Your task to perform on an android device: all mails in gmail Image 0: 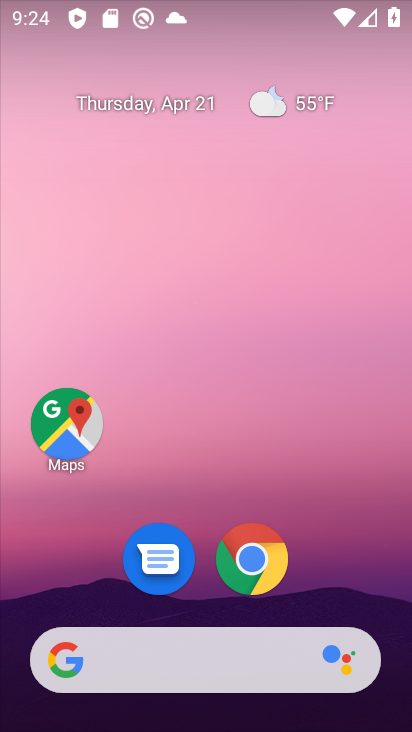
Step 0: drag from (358, 589) to (329, 34)
Your task to perform on an android device: all mails in gmail Image 1: 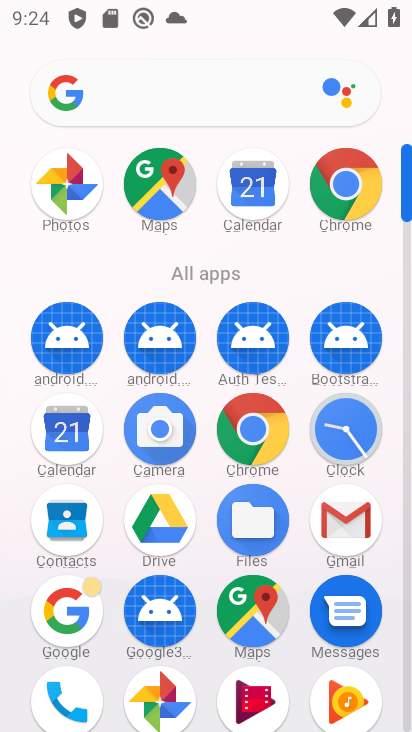
Step 1: click (359, 522)
Your task to perform on an android device: all mails in gmail Image 2: 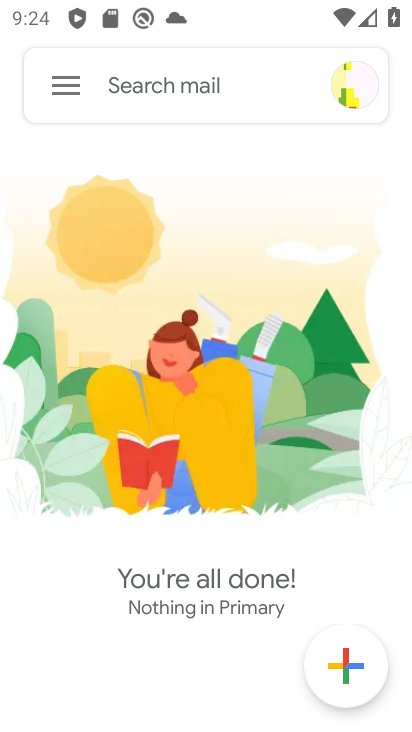
Step 2: click (66, 86)
Your task to perform on an android device: all mails in gmail Image 3: 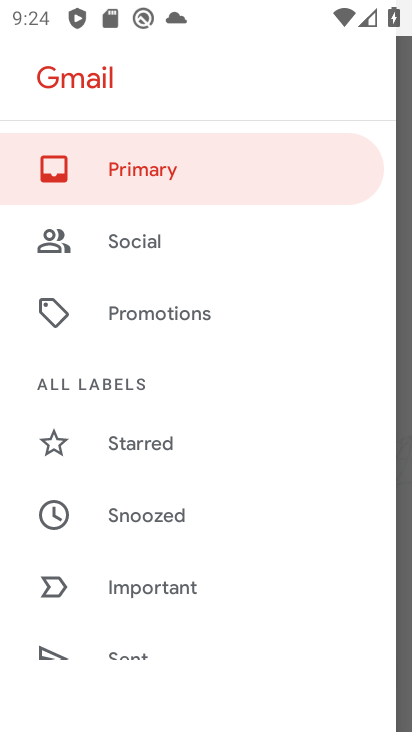
Step 3: drag from (160, 628) to (121, 348)
Your task to perform on an android device: all mails in gmail Image 4: 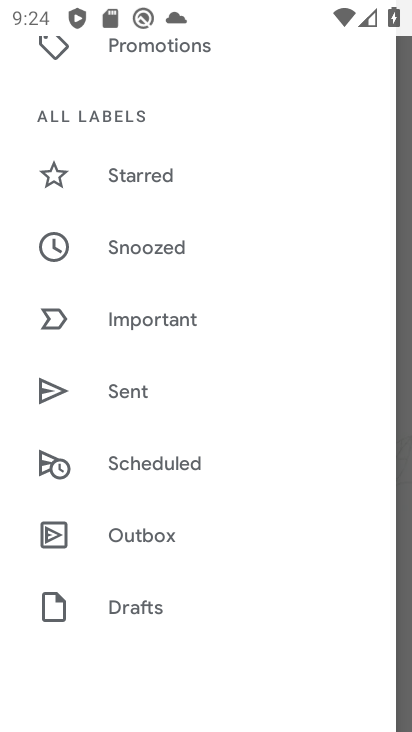
Step 4: drag from (153, 571) to (140, 290)
Your task to perform on an android device: all mails in gmail Image 5: 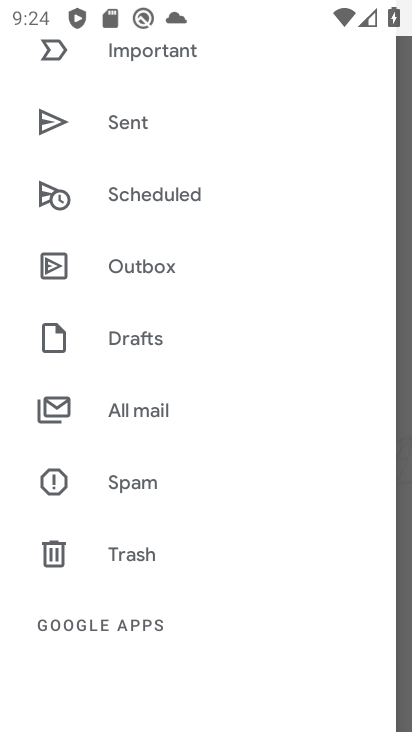
Step 5: click (149, 406)
Your task to perform on an android device: all mails in gmail Image 6: 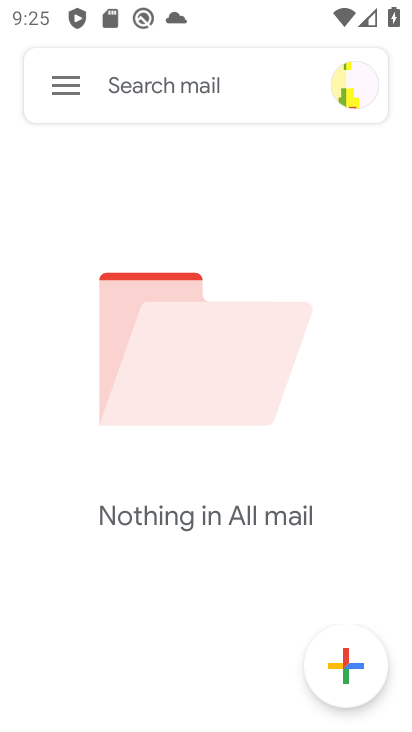
Step 6: task complete